Your task to perform on an android device: Open Google Chrome and click the shortcut for Amazon.com Image 0: 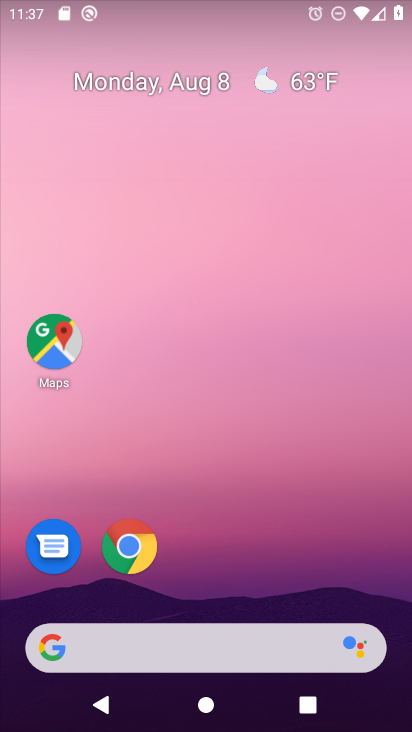
Step 0: press home button
Your task to perform on an android device: Open Google Chrome and click the shortcut for Amazon.com Image 1: 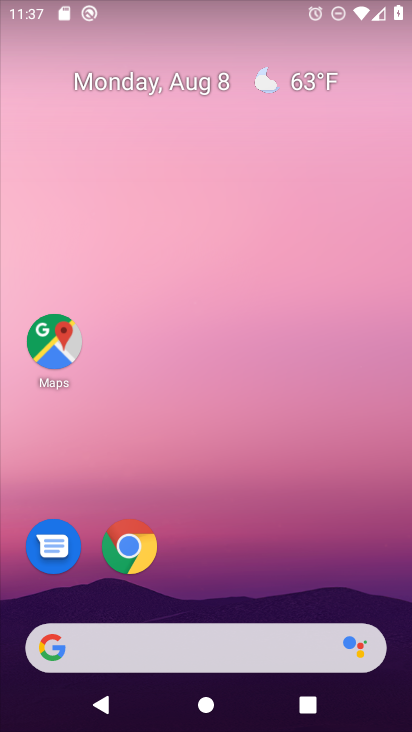
Step 1: click (128, 541)
Your task to perform on an android device: Open Google Chrome and click the shortcut for Amazon.com Image 2: 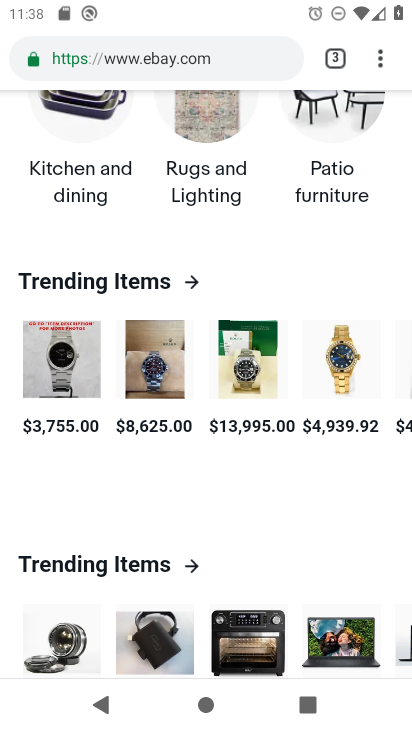
Step 2: drag from (199, 144) to (242, 506)
Your task to perform on an android device: Open Google Chrome and click the shortcut for Amazon.com Image 3: 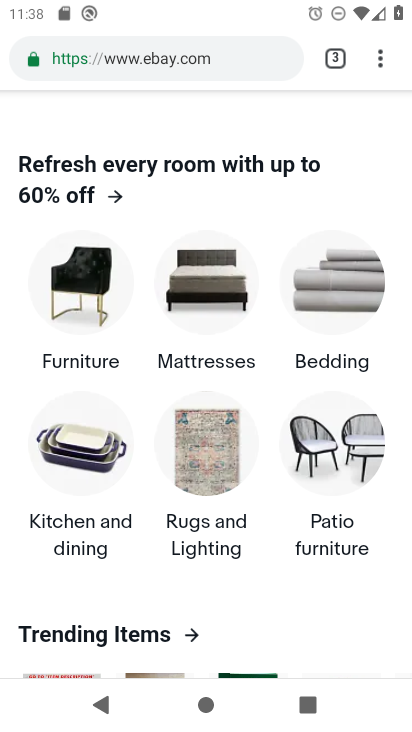
Step 3: click (336, 60)
Your task to perform on an android device: Open Google Chrome and click the shortcut for Amazon.com Image 4: 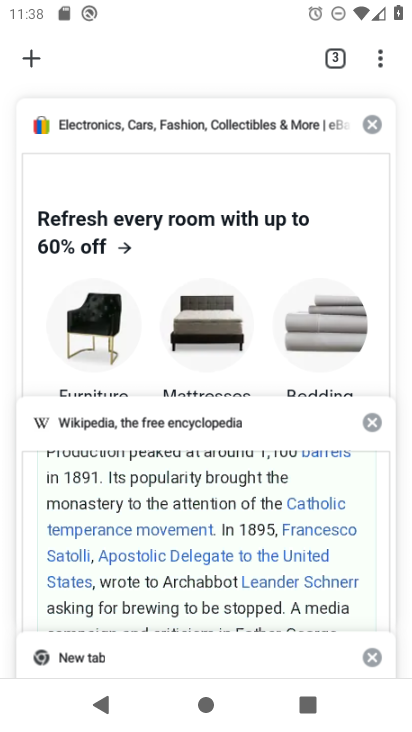
Step 4: click (135, 649)
Your task to perform on an android device: Open Google Chrome and click the shortcut for Amazon.com Image 5: 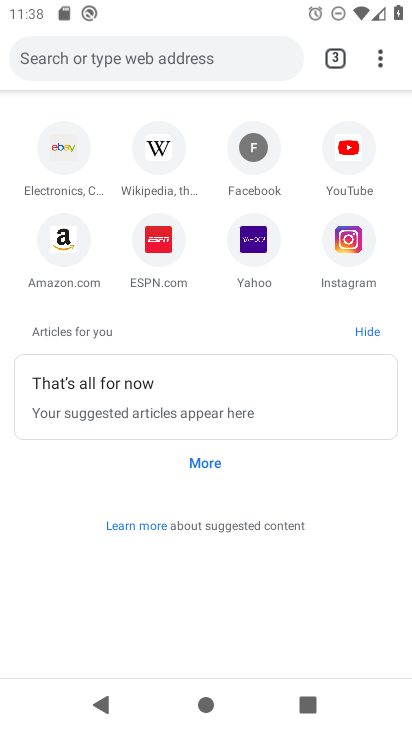
Step 5: click (59, 232)
Your task to perform on an android device: Open Google Chrome and click the shortcut for Amazon.com Image 6: 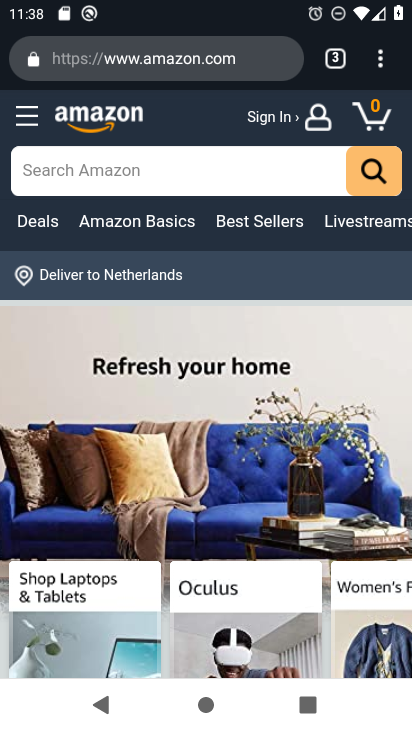
Step 6: task complete